Your task to perform on an android device: Open internet settings Image 0: 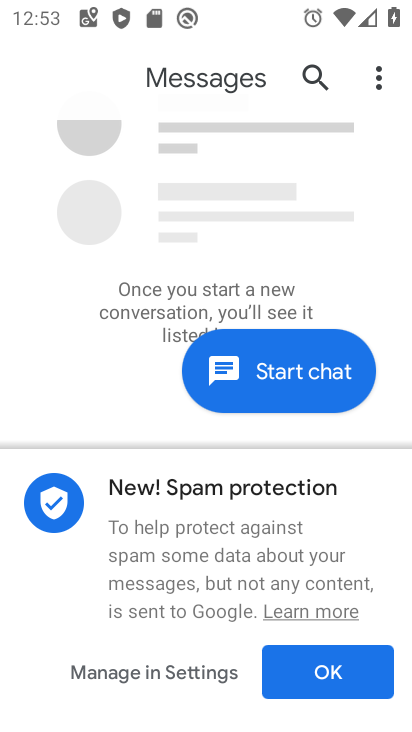
Step 0: press home button
Your task to perform on an android device: Open internet settings Image 1: 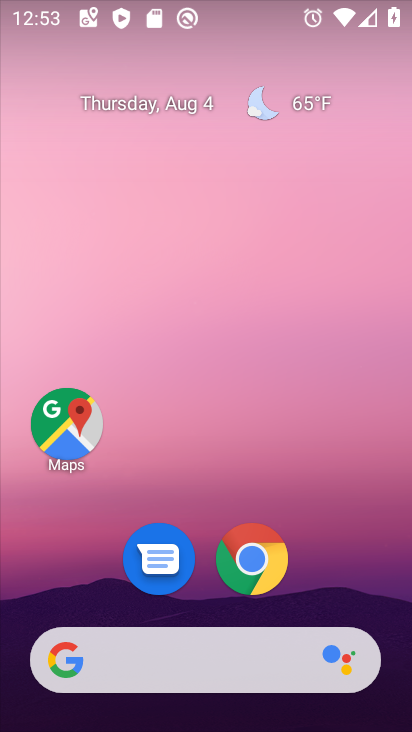
Step 1: drag from (197, 684) to (205, 134)
Your task to perform on an android device: Open internet settings Image 2: 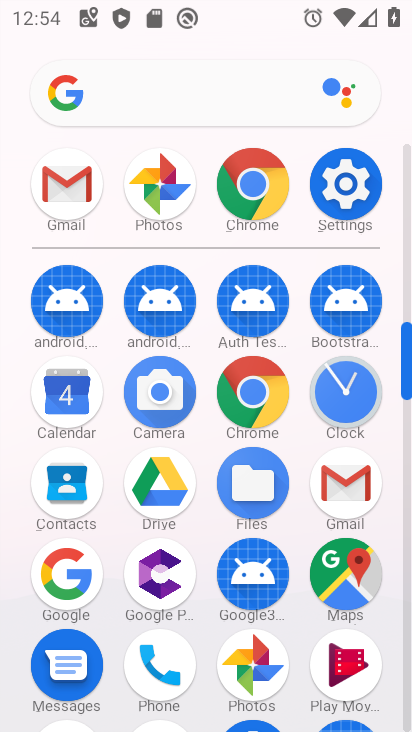
Step 2: click (344, 185)
Your task to perform on an android device: Open internet settings Image 3: 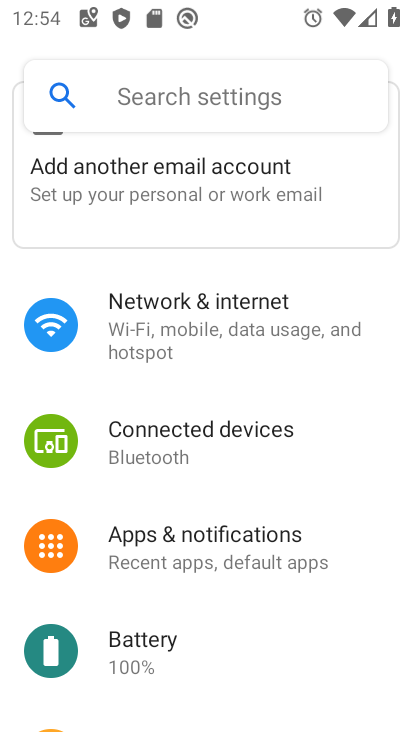
Step 3: click (249, 323)
Your task to perform on an android device: Open internet settings Image 4: 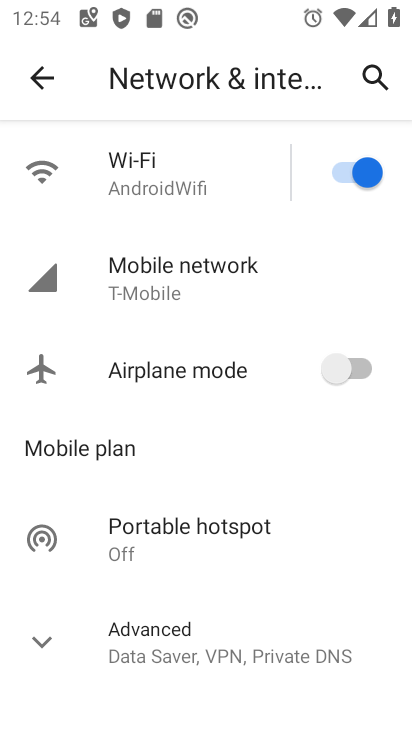
Step 4: task complete